Your task to perform on an android device: Show me productivity apps on the Play Store Image 0: 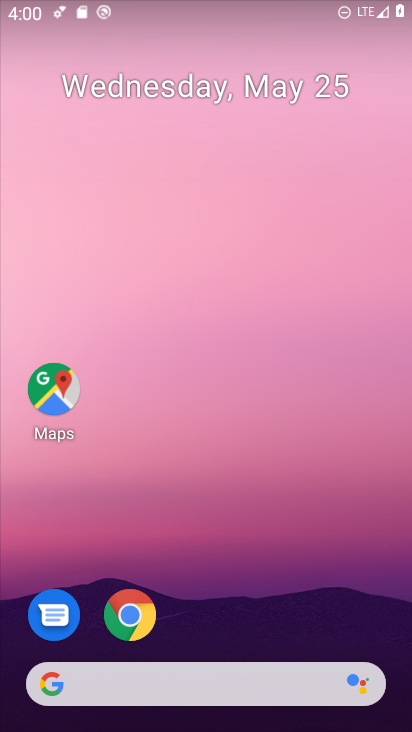
Step 0: drag from (242, 572) to (282, 6)
Your task to perform on an android device: Show me productivity apps on the Play Store Image 1: 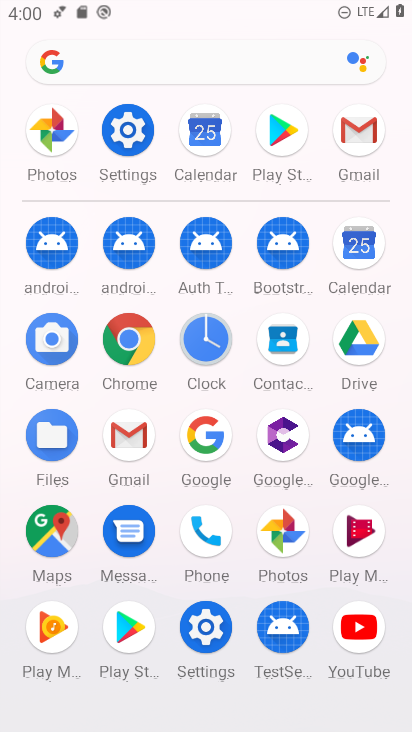
Step 1: click (131, 618)
Your task to perform on an android device: Show me productivity apps on the Play Store Image 2: 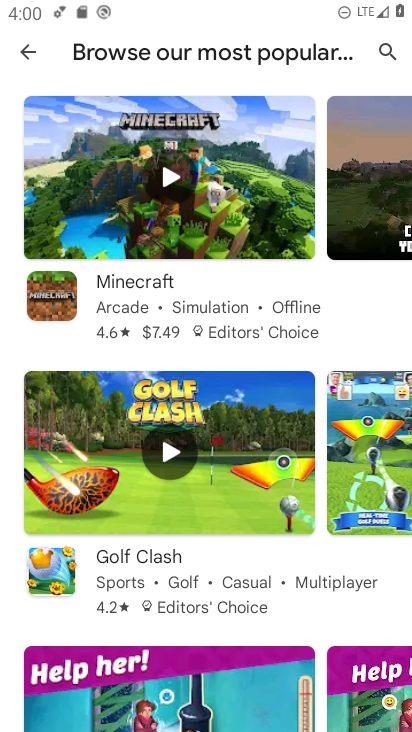
Step 2: click (27, 46)
Your task to perform on an android device: Show me productivity apps on the Play Store Image 3: 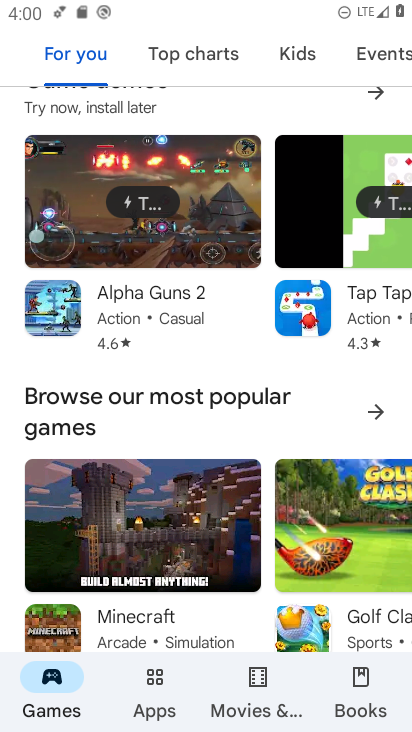
Step 3: click (147, 683)
Your task to perform on an android device: Show me productivity apps on the Play Store Image 4: 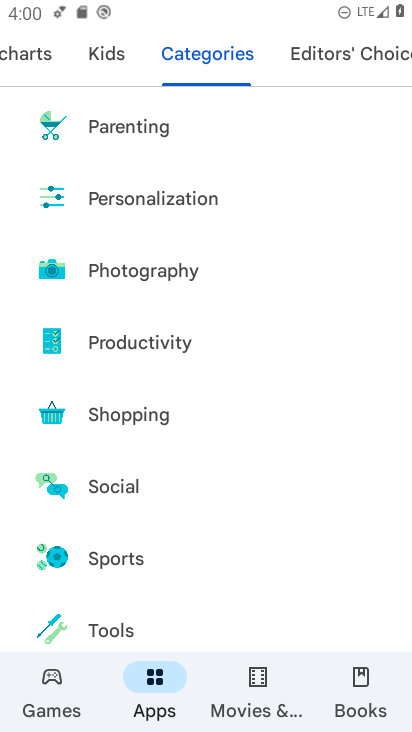
Step 4: click (160, 338)
Your task to perform on an android device: Show me productivity apps on the Play Store Image 5: 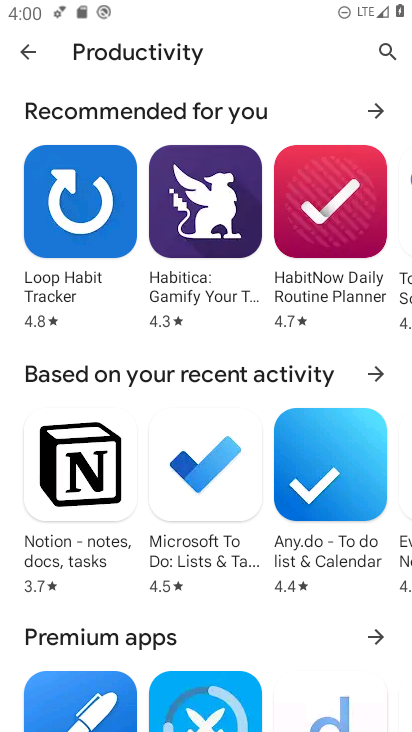
Step 5: task complete